Your task to perform on an android device: What is the news today? Image 0: 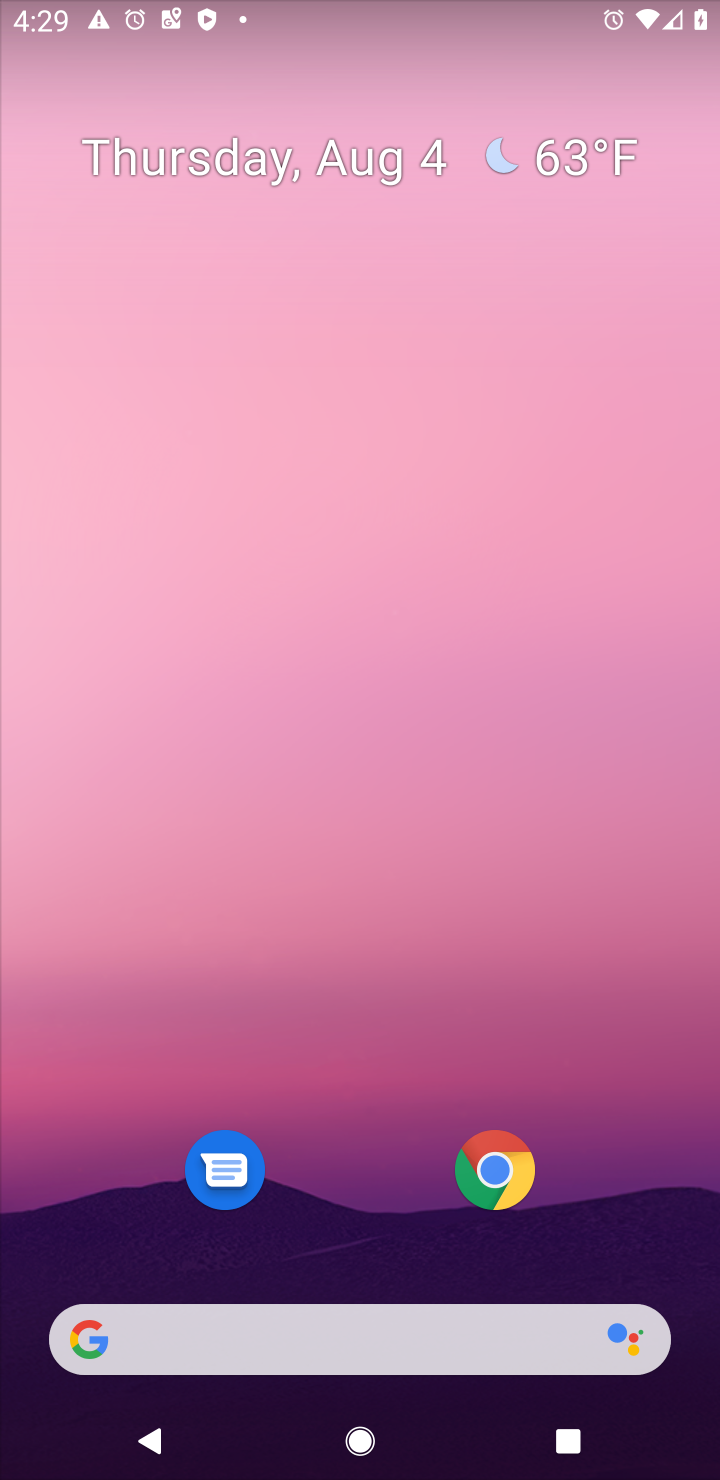
Step 0: drag from (9, 681) to (715, 768)
Your task to perform on an android device: What is the news today? Image 1: 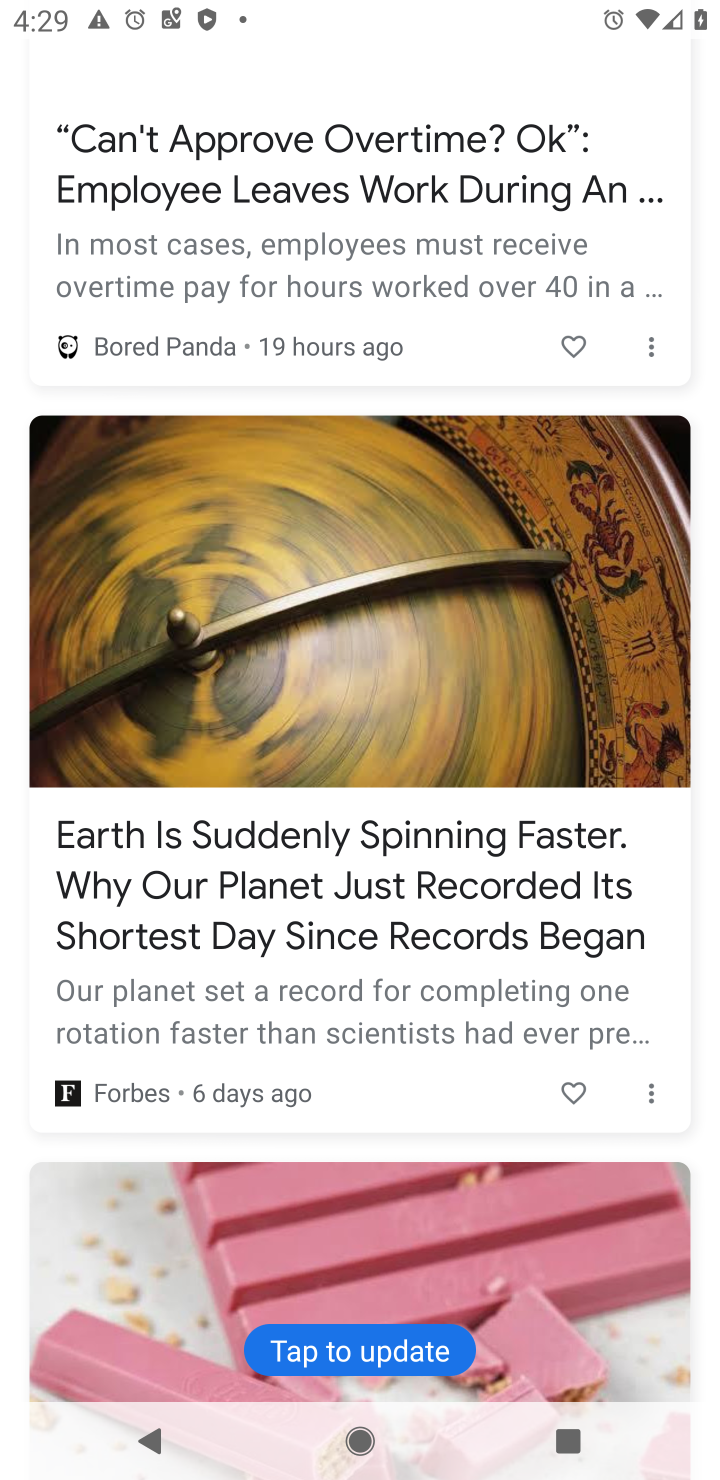
Step 1: task complete